Your task to perform on an android device: toggle translation in the chrome app Image 0: 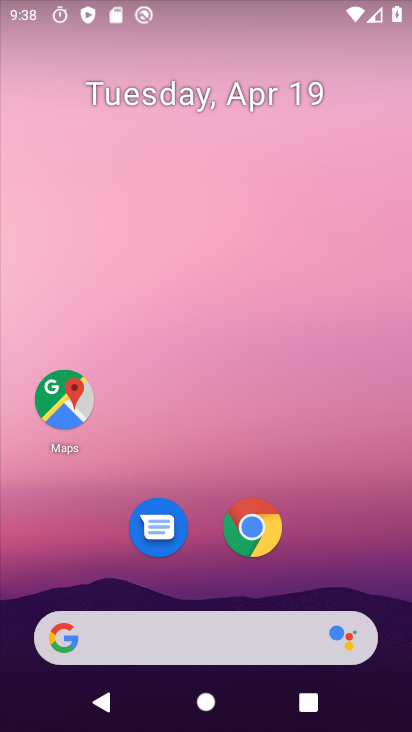
Step 0: drag from (254, 664) to (255, 96)
Your task to perform on an android device: toggle translation in the chrome app Image 1: 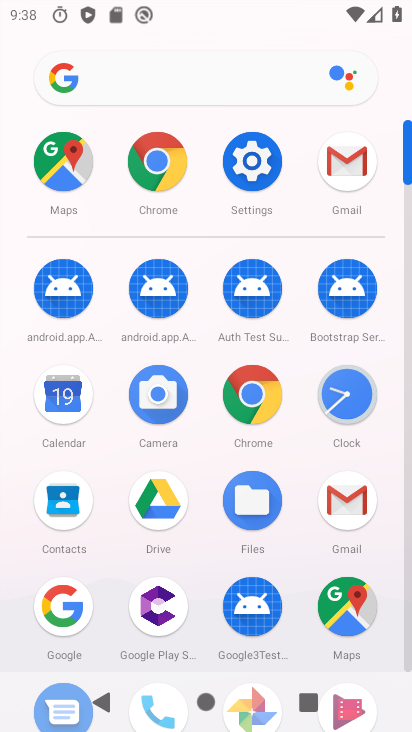
Step 1: click (238, 409)
Your task to perform on an android device: toggle translation in the chrome app Image 2: 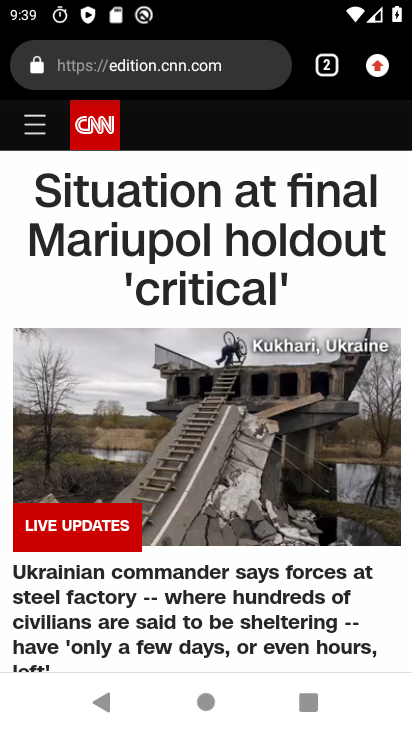
Step 2: click (403, 84)
Your task to perform on an android device: toggle translation in the chrome app Image 3: 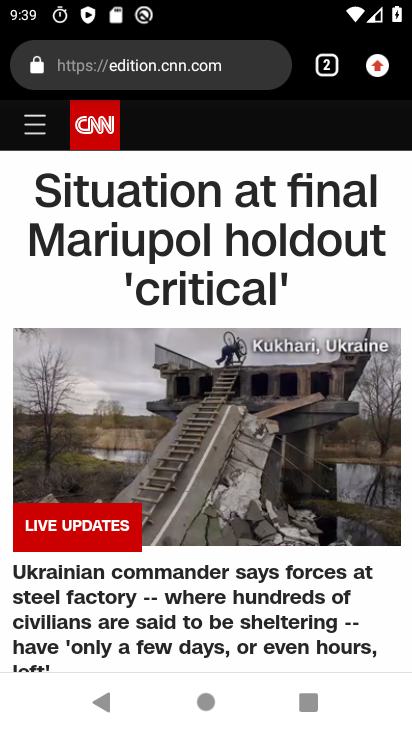
Step 3: click (385, 69)
Your task to perform on an android device: toggle translation in the chrome app Image 4: 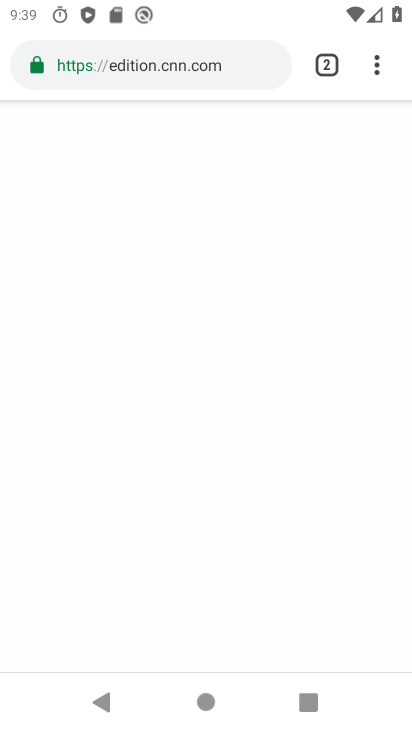
Step 4: click (376, 67)
Your task to perform on an android device: toggle translation in the chrome app Image 5: 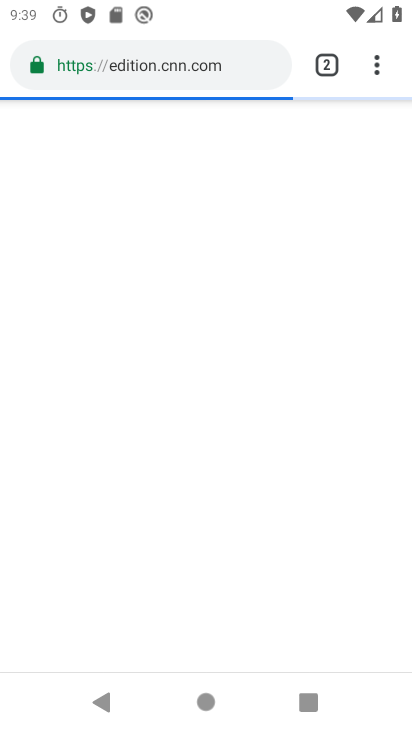
Step 5: click (377, 67)
Your task to perform on an android device: toggle translation in the chrome app Image 6: 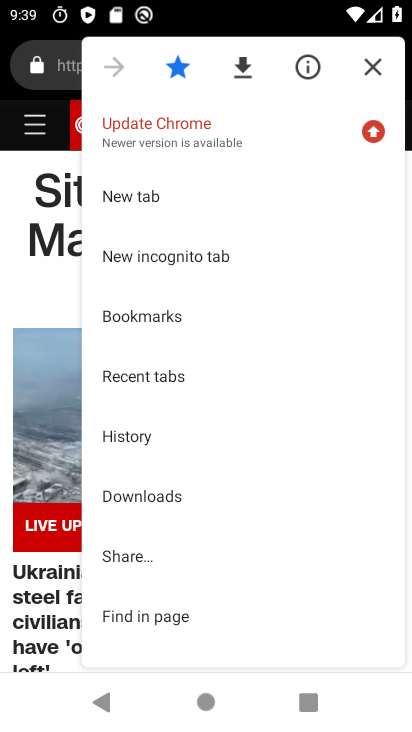
Step 6: drag from (133, 631) to (250, 383)
Your task to perform on an android device: toggle translation in the chrome app Image 7: 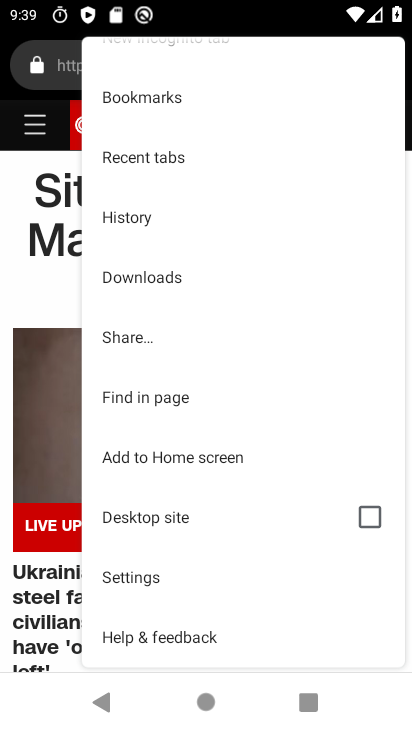
Step 7: click (147, 577)
Your task to perform on an android device: toggle translation in the chrome app Image 8: 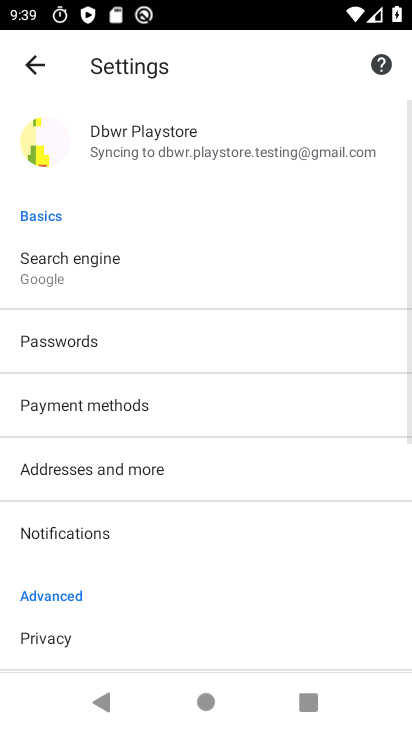
Step 8: drag from (182, 505) to (254, 298)
Your task to perform on an android device: toggle translation in the chrome app Image 9: 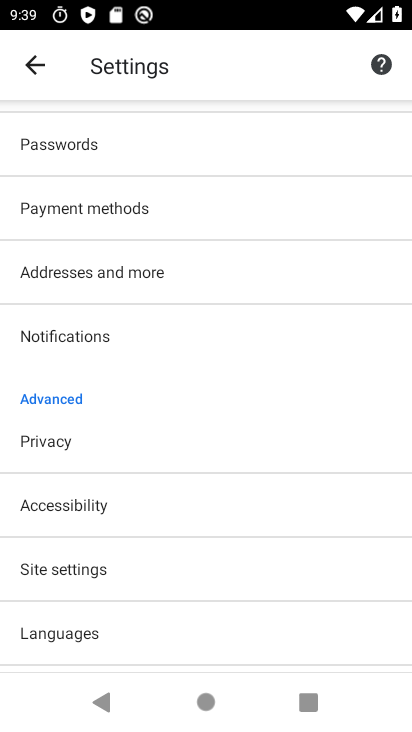
Step 9: drag from (185, 467) to (243, 333)
Your task to perform on an android device: toggle translation in the chrome app Image 10: 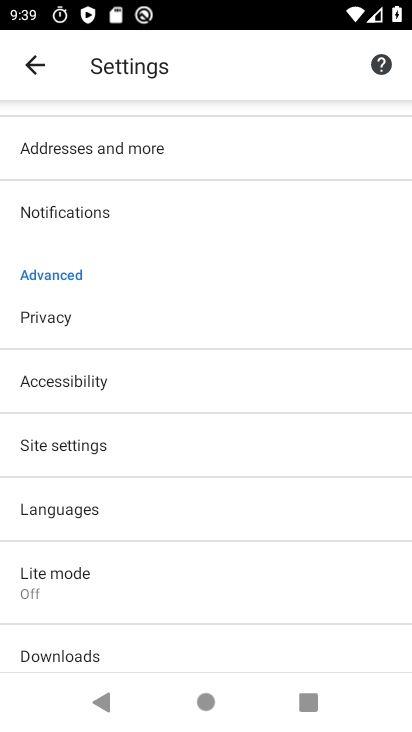
Step 10: click (84, 515)
Your task to perform on an android device: toggle translation in the chrome app Image 11: 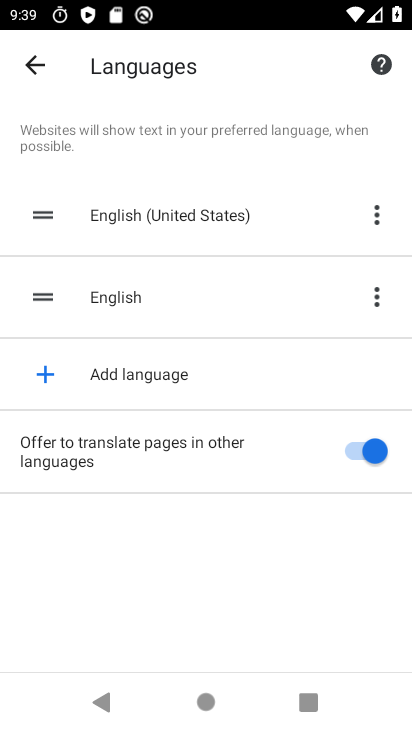
Step 11: click (167, 440)
Your task to perform on an android device: toggle translation in the chrome app Image 12: 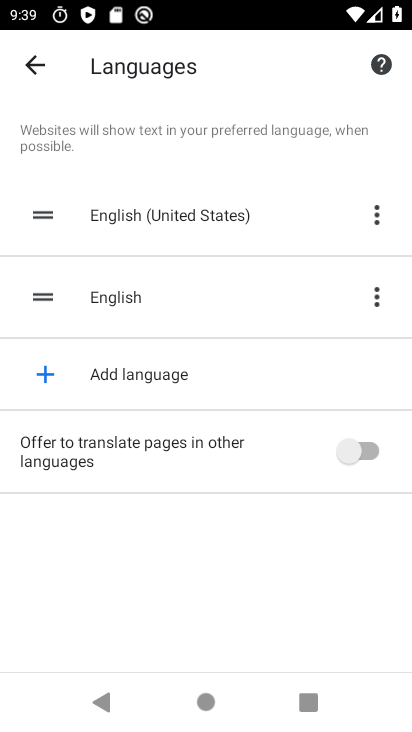
Step 12: task complete